Your task to perform on an android device: Go to Amazon Image 0: 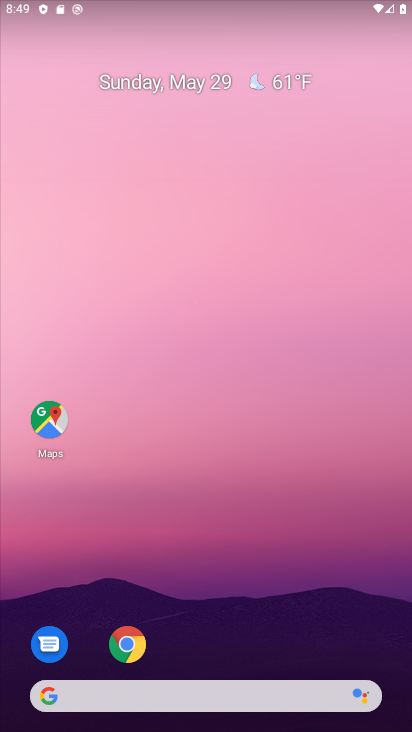
Step 0: drag from (263, 666) to (222, 7)
Your task to perform on an android device: Go to Amazon Image 1: 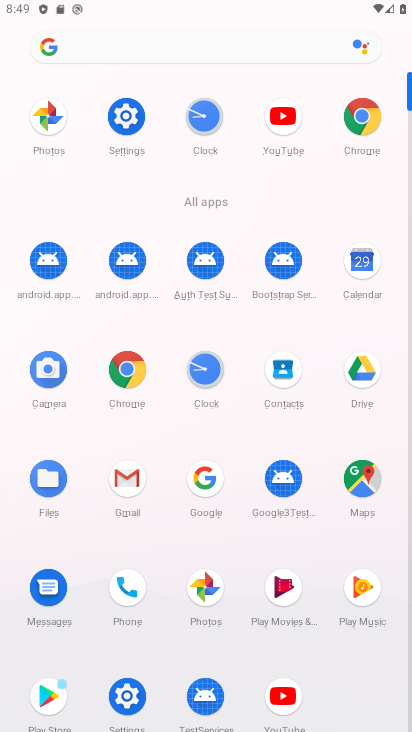
Step 1: click (345, 160)
Your task to perform on an android device: Go to Amazon Image 2: 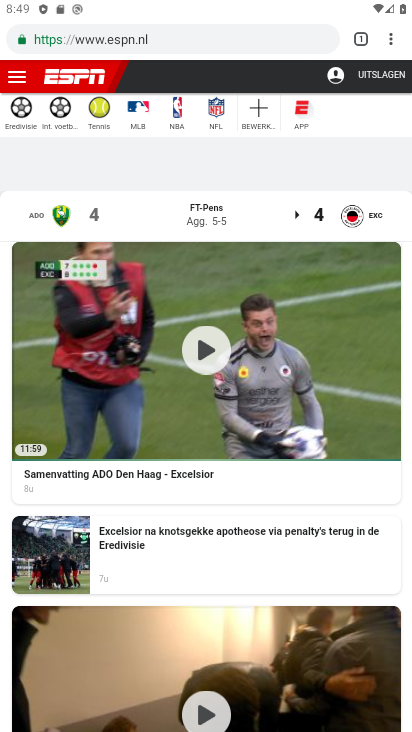
Step 2: click (196, 43)
Your task to perform on an android device: Go to Amazon Image 3: 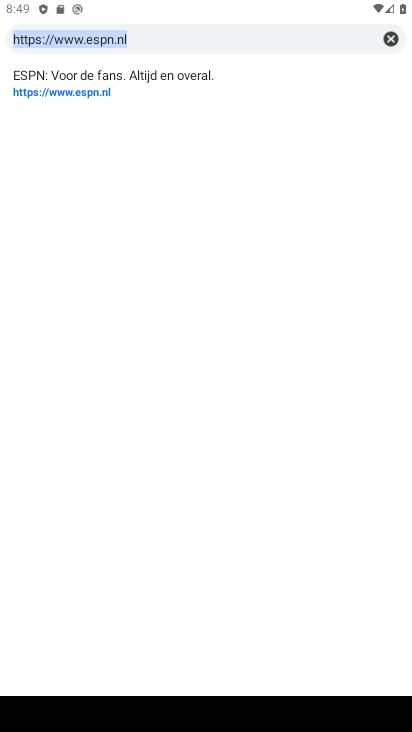
Step 3: type "amazon"
Your task to perform on an android device: Go to Amazon Image 4: 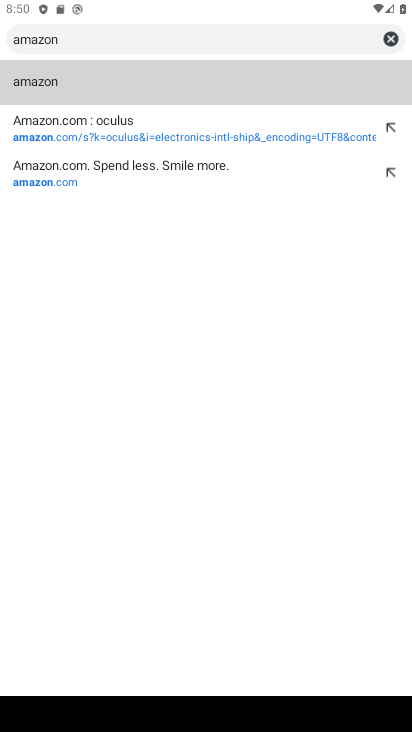
Step 4: click (111, 171)
Your task to perform on an android device: Go to Amazon Image 5: 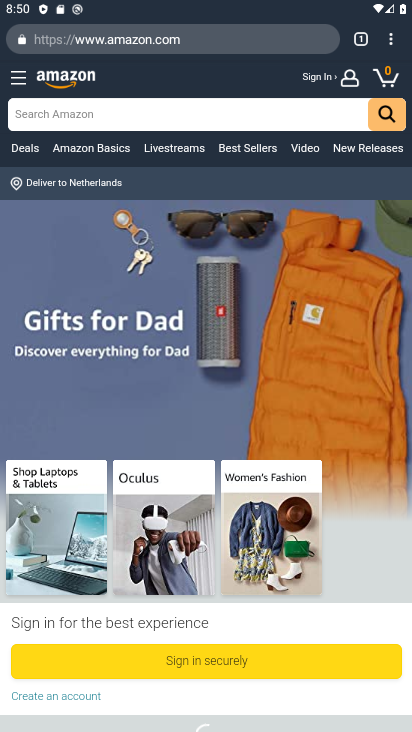
Step 5: task complete